Your task to perform on an android device: Go to eBay Image 0: 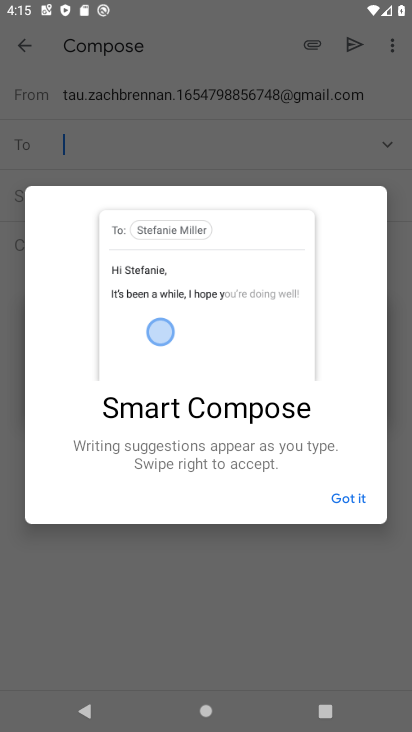
Step 0: press home button
Your task to perform on an android device: Go to eBay Image 1: 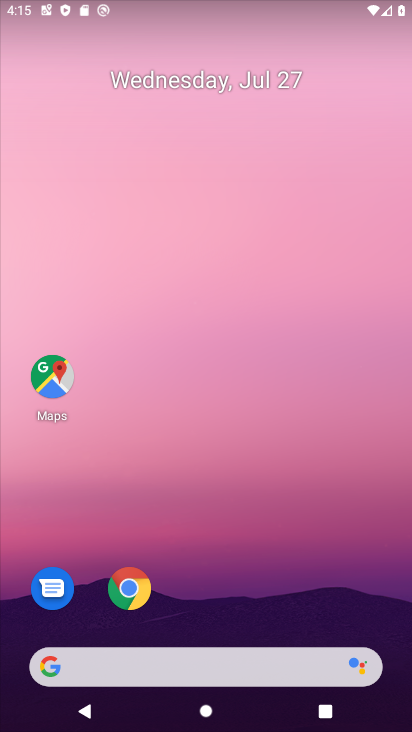
Step 1: click (129, 587)
Your task to perform on an android device: Go to eBay Image 2: 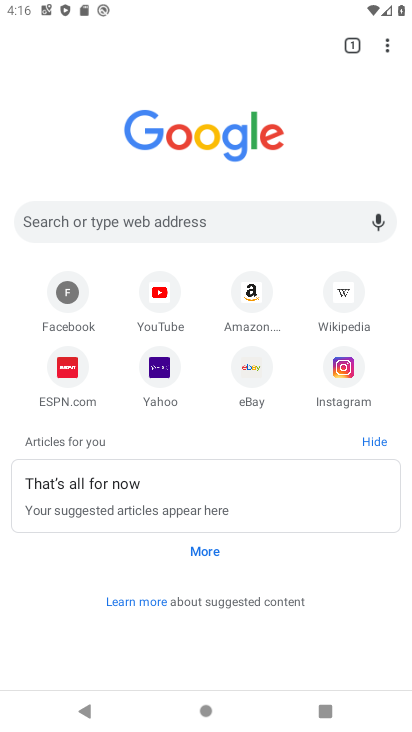
Step 2: click (225, 223)
Your task to perform on an android device: Go to eBay Image 3: 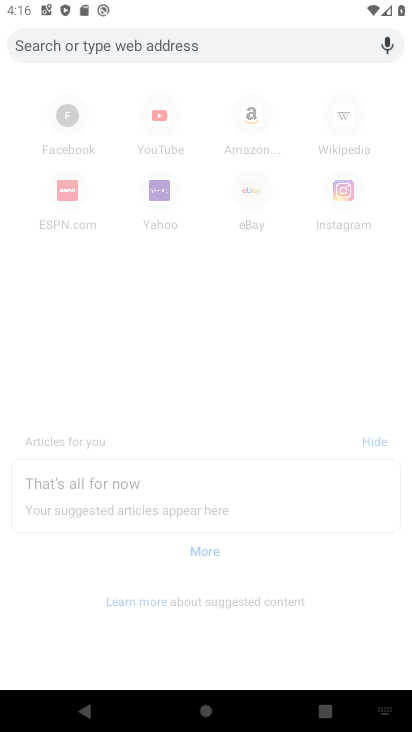
Step 3: type "Ebay"
Your task to perform on an android device: Go to eBay Image 4: 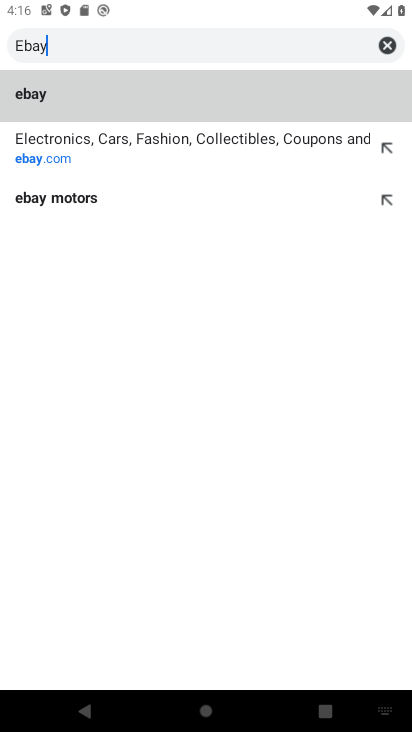
Step 4: type ""
Your task to perform on an android device: Go to eBay Image 5: 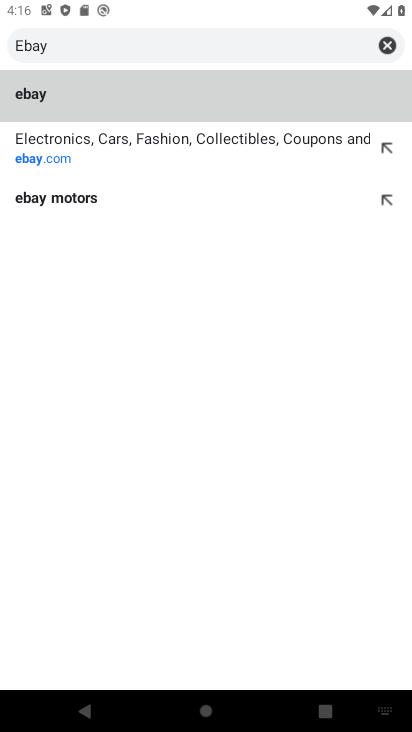
Step 5: click (56, 96)
Your task to perform on an android device: Go to eBay Image 6: 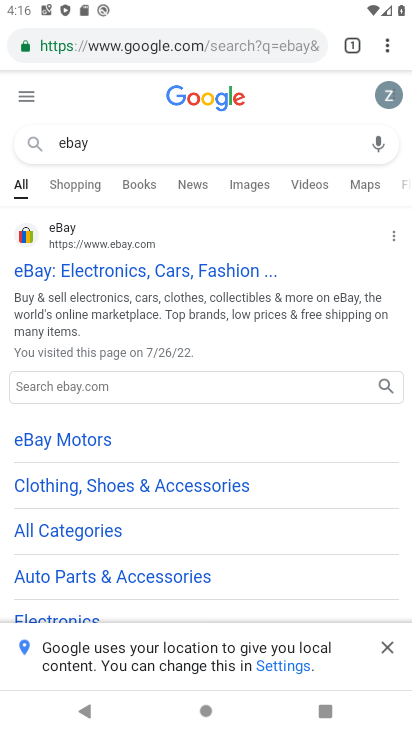
Step 6: click (89, 270)
Your task to perform on an android device: Go to eBay Image 7: 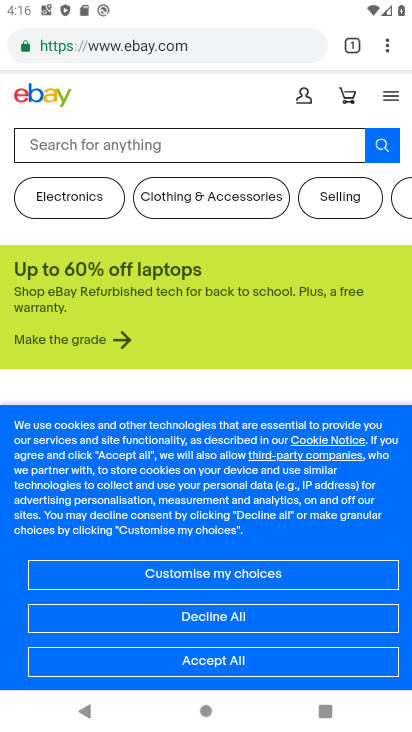
Step 7: task complete